Your task to perform on an android device: toggle pop-ups in chrome Image 0: 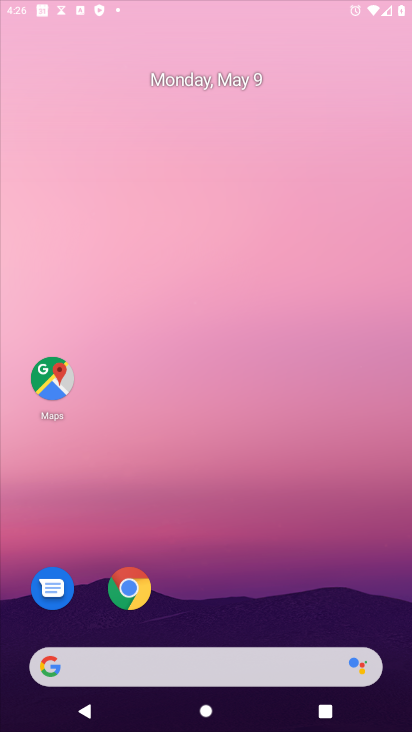
Step 0: drag from (234, 214) to (222, 162)
Your task to perform on an android device: toggle pop-ups in chrome Image 1: 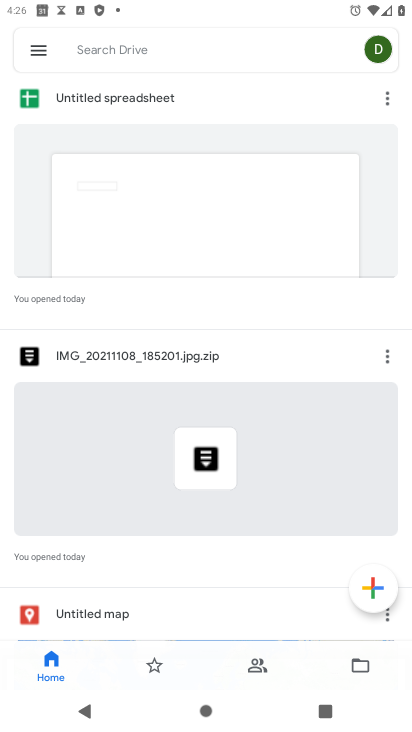
Step 1: press home button
Your task to perform on an android device: toggle pop-ups in chrome Image 2: 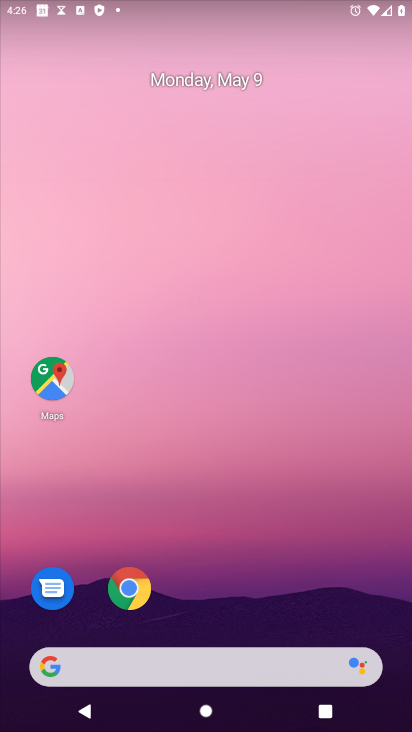
Step 2: click (119, 573)
Your task to perform on an android device: toggle pop-ups in chrome Image 3: 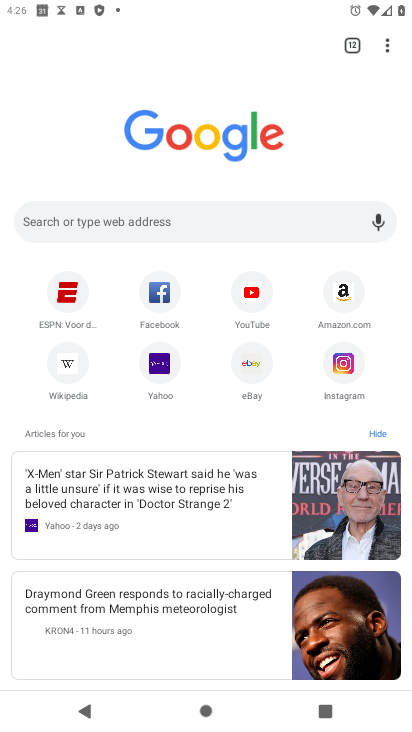
Step 3: click (387, 46)
Your task to perform on an android device: toggle pop-ups in chrome Image 4: 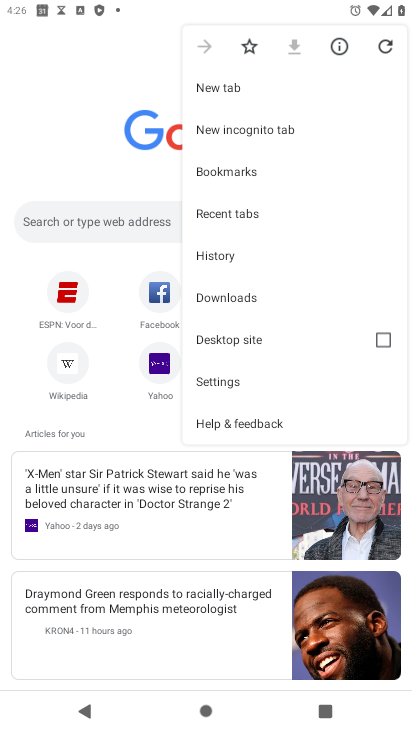
Step 4: click (225, 379)
Your task to perform on an android device: toggle pop-ups in chrome Image 5: 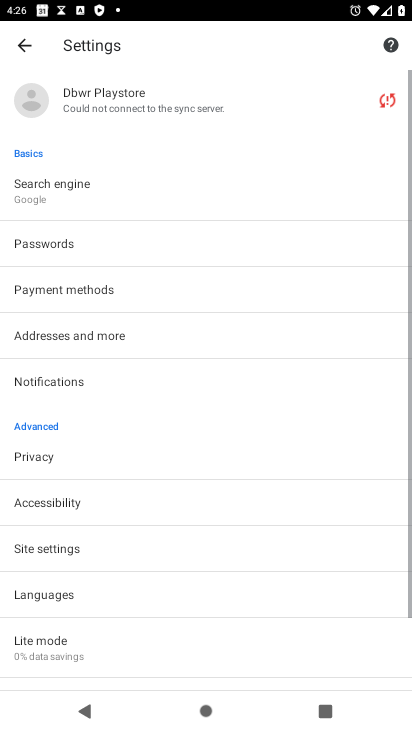
Step 5: click (80, 553)
Your task to perform on an android device: toggle pop-ups in chrome Image 6: 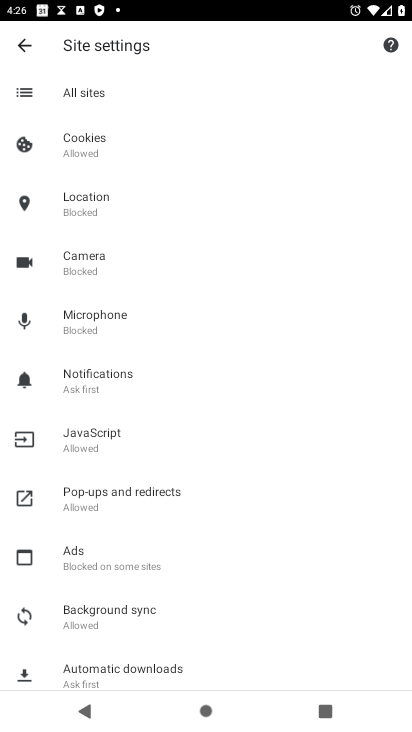
Step 6: click (125, 493)
Your task to perform on an android device: toggle pop-ups in chrome Image 7: 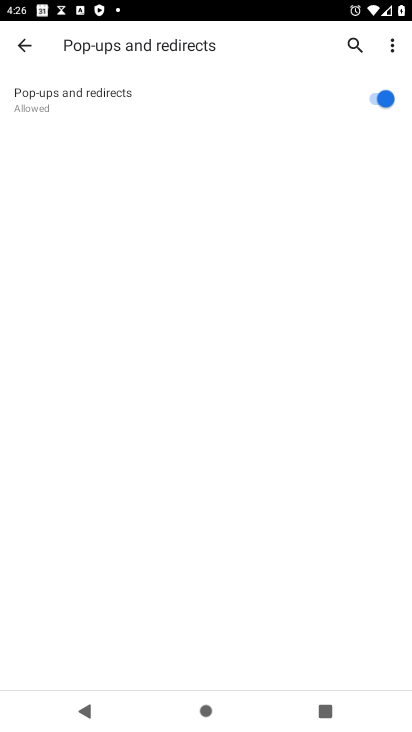
Step 7: click (394, 90)
Your task to perform on an android device: toggle pop-ups in chrome Image 8: 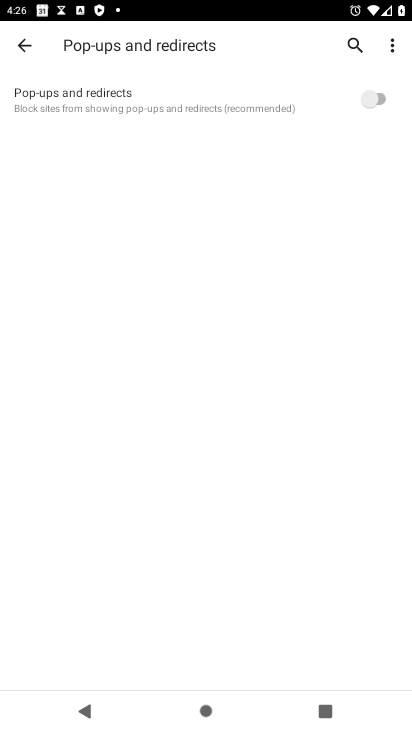
Step 8: task complete